Your task to perform on an android device: turn on javascript in the chrome app Image 0: 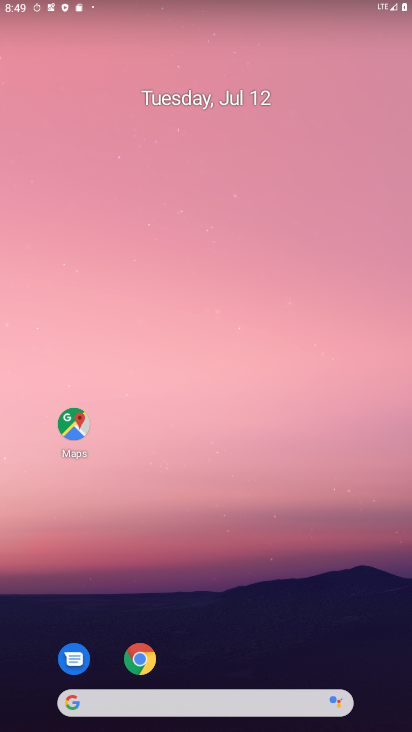
Step 0: drag from (381, 699) to (306, 21)
Your task to perform on an android device: turn on javascript in the chrome app Image 1: 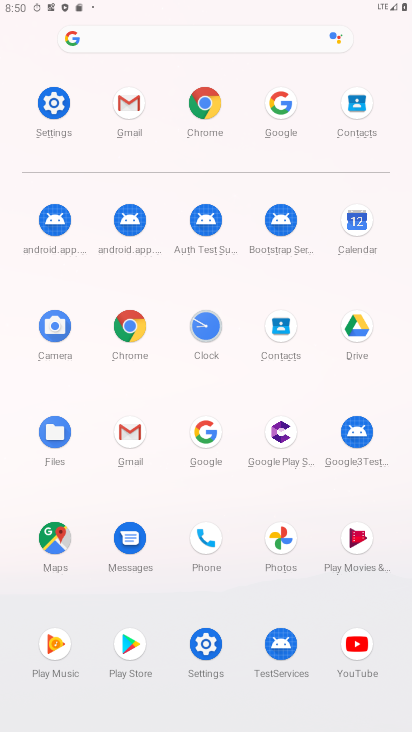
Step 1: click (121, 339)
Your task to perform on an android device: turn on javascript in the chrome app Image 2: 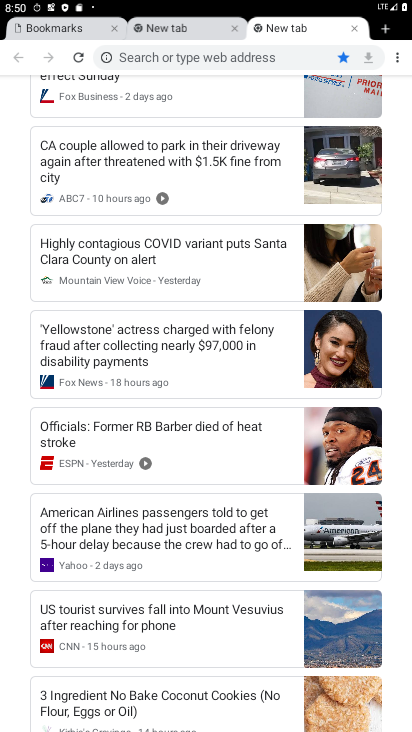
Step 2: click (394, 55)
Your task to perform on an android device: turn on javascript in the chrome app Image 3: 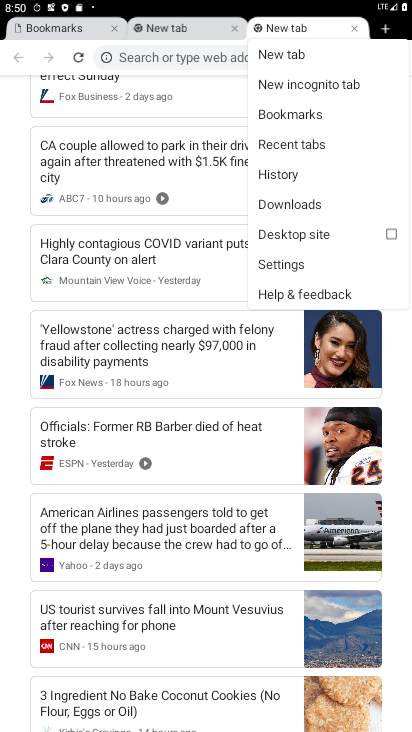
Step 3: click (290, 267)
Your task to perform on an android device: turn on javascript in the chrome app Image 4: 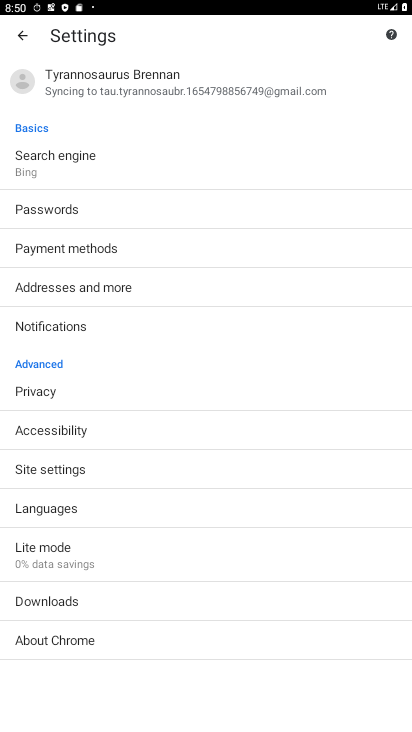
Step 4: click (46, 471)
Your task to perform on an android device: turn on javascript in the chrome app Image 5: 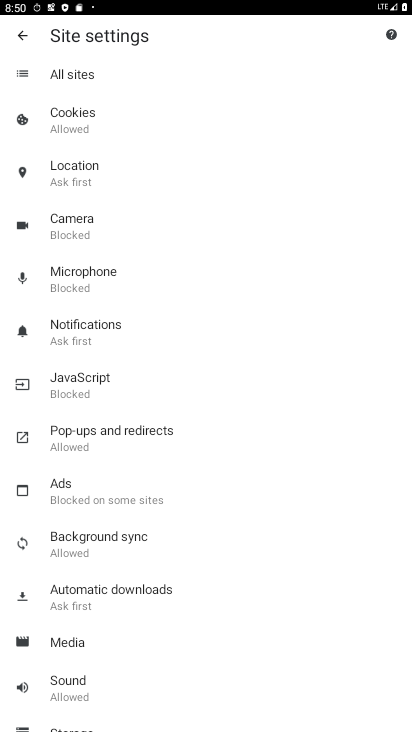
Step 5: click (113, 392)
Your task to perform on an android device: turn on javascript in the chrome app Image 6: 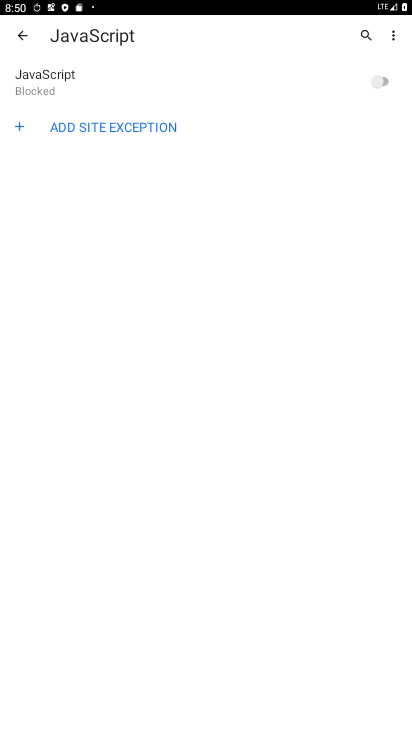
Step 6: click (374, 82)
Your task to perform on an android device: turn on javascript in the chrome app Image 7: 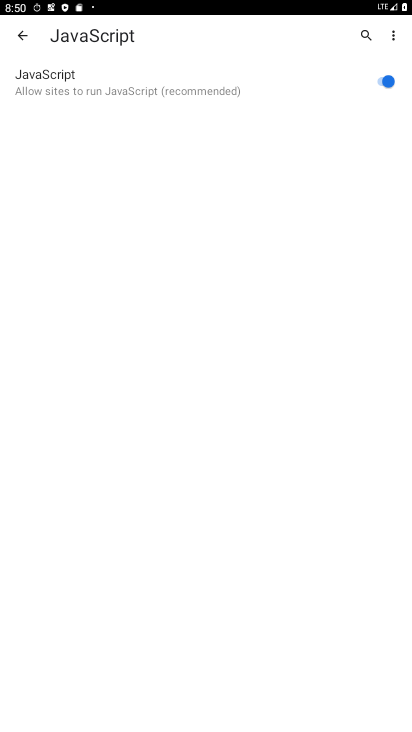
Step 7: task complete